Your task to perform on an android device: toggle translation in the chrome app Image 0: 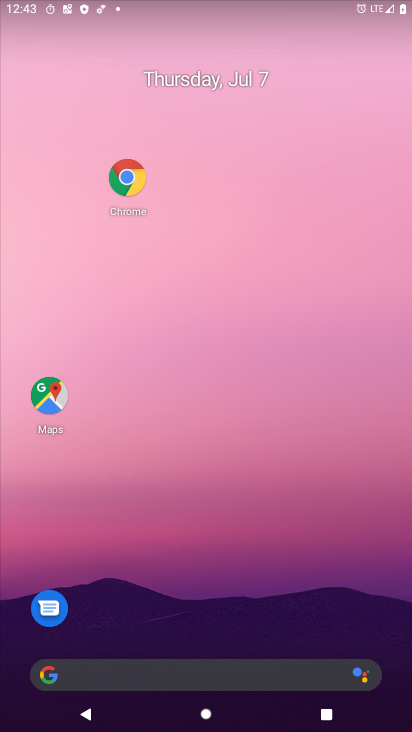
Step 0: drag from (171, 670) to (193, 303)
Your task to perform on an android device: toggle translation in the chrome app Image 1: 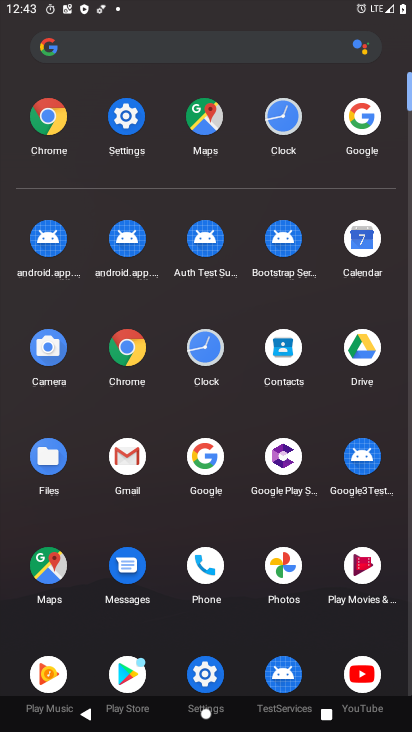
Step 1: click (127, 342)
Your task to perform on an android device: toggle translation in the chrome app Image 2: 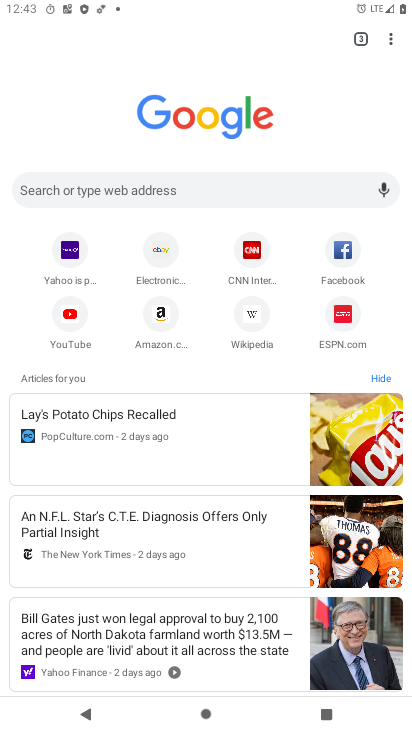
Step 2: click (393, 32)
Your task to perform on an android device: toggle translation in the chrome app Image 3: 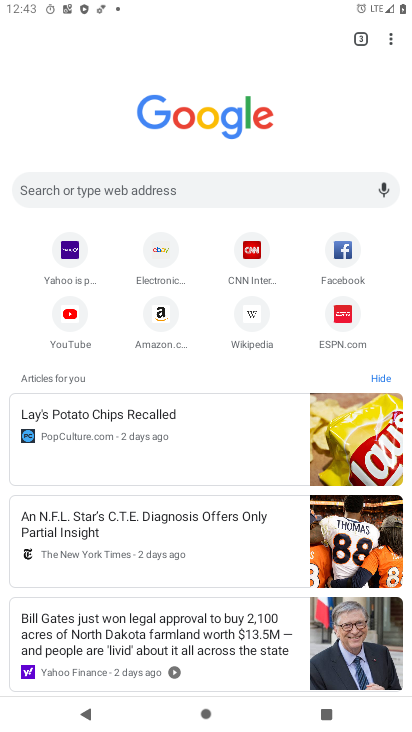
Step 3: click (391, 40)
Your task to perform on an android device: toggle translation in the chrome app Image 4: 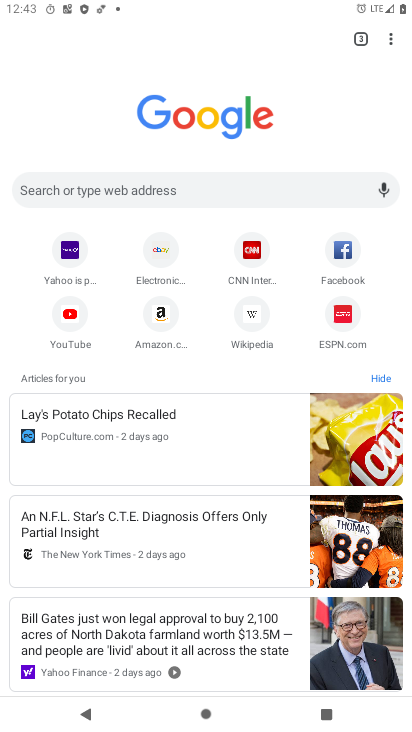
Step 4: click (391, 40)
Your task to perform on an android device: toggle translation in the chrome app Image 5: 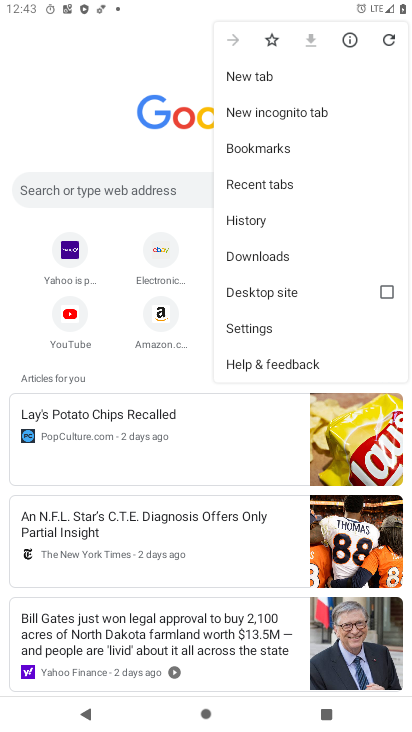
Step 5: click (247, 323)
Your task to perform on an android device: toggle translation in the chrome app Image 6: 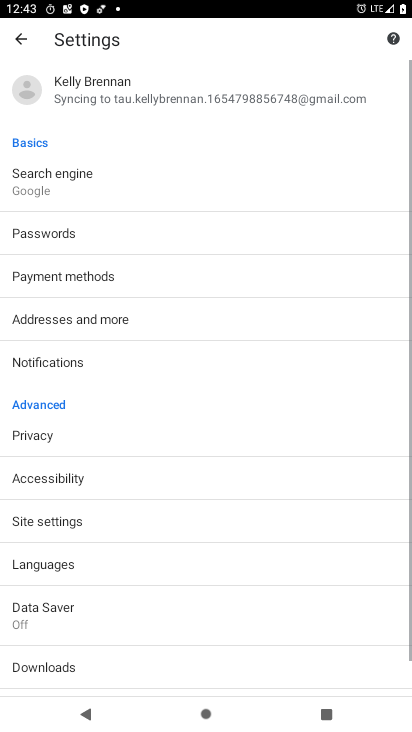
Step 6: drag from (125, 655) to (115, 266)
Your task to perform on an android device: toggle translation in the chrome app Image 7: 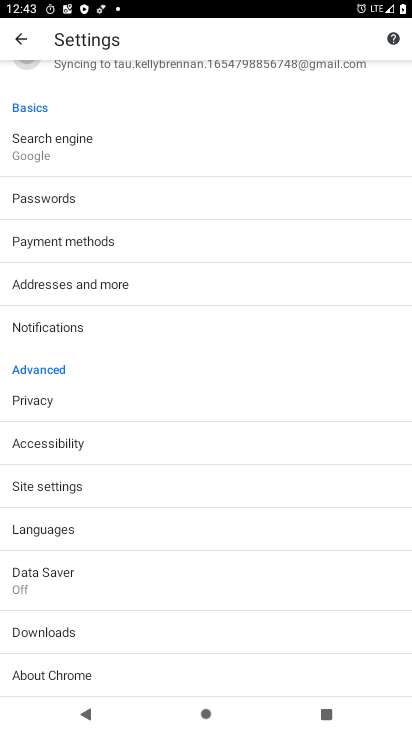
Step 7: click (53, 532)
Your task to perform on an android device: toggle translation in the chrome app Image 8: 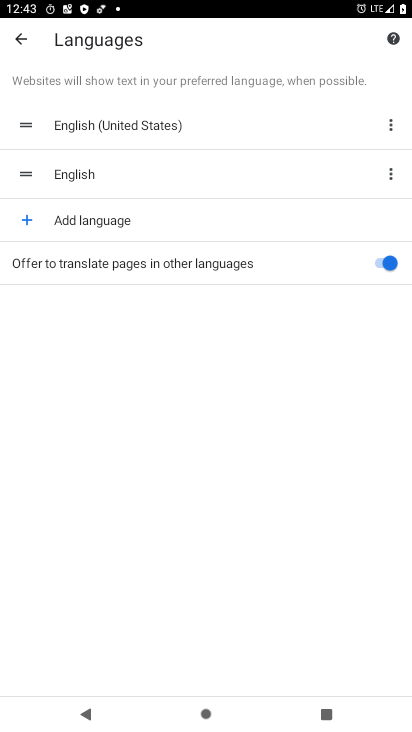
Step 8: click (382, 263)
Your task to perform on an android device: toggle translation in the chrome app Image 9: 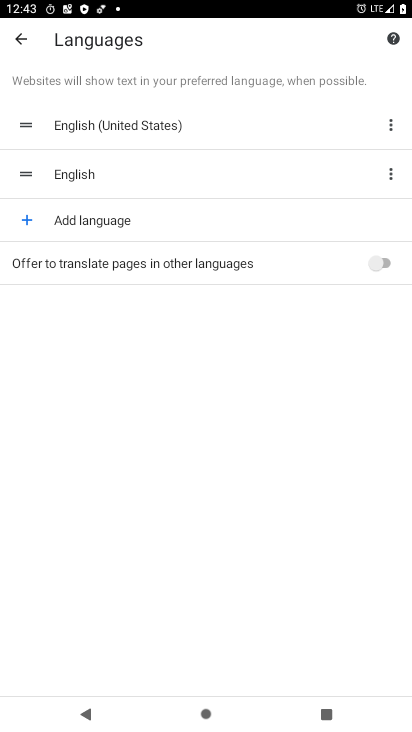
Step 9: task complete